Your task to perform on an android device: set the stopwatch Image 0: 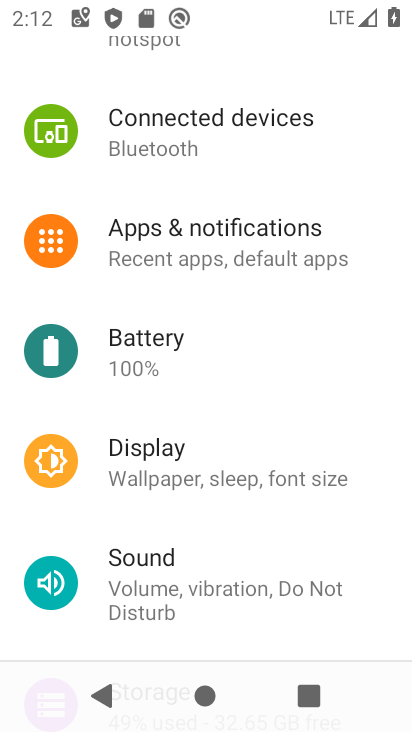
Step 0: press home button
Your task to perform on an android device: set the stopwatch Image 1: 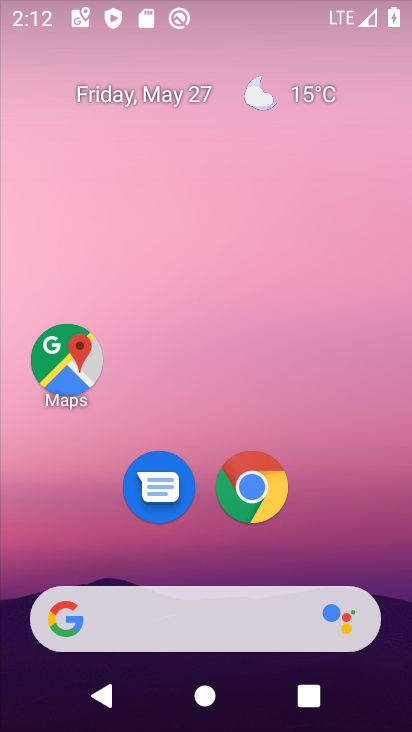
Step 1: drag from (341, 503) to (310, 137)
Your task to perform on an android device: set the stopwatch Image 2: 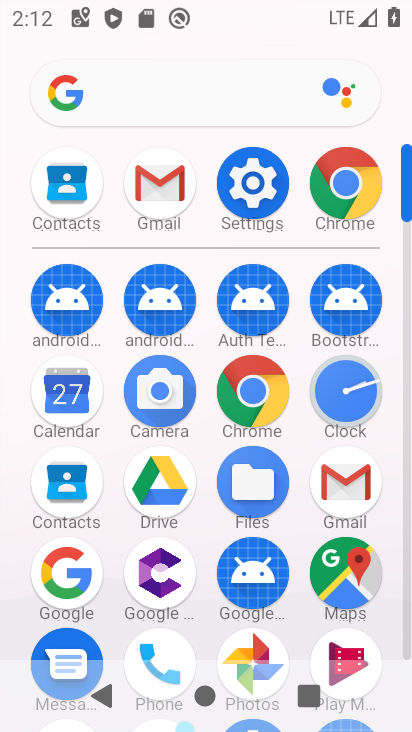
Step 2: click (350, 394)
Your task to perform on an android device: set the stopwatch Image 3: 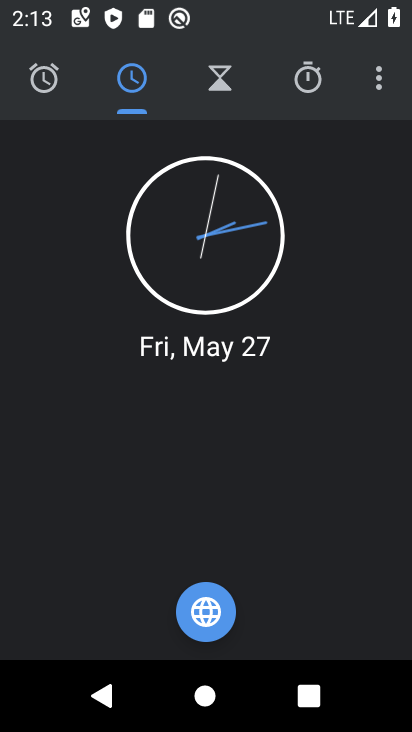
Step 3: click (296, 71)
Your task to perform on an android device: set the stopwatch Image 4: 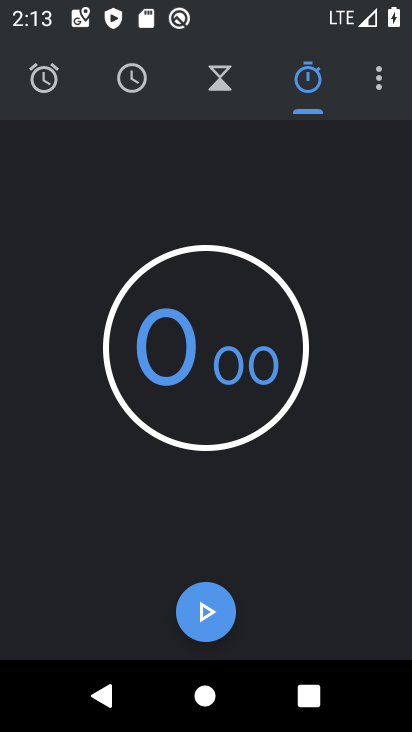
Step 4: click (225, 615)
Your task to perform on an android device: set the stopwatch Image 5: 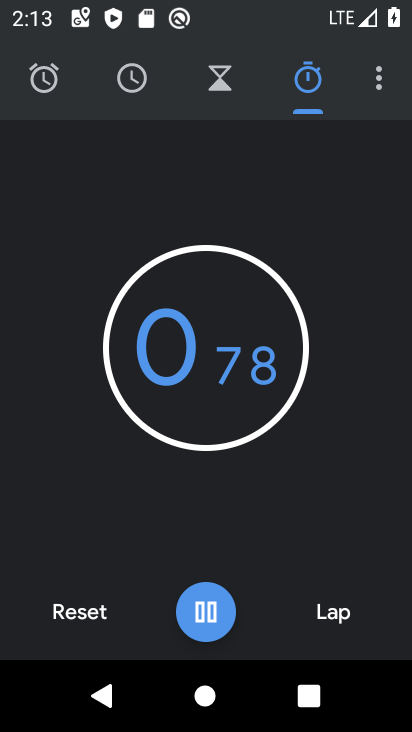
Step 5: click (224, 612)
Your task to perform on an android device: set the stopwatch Image 6: 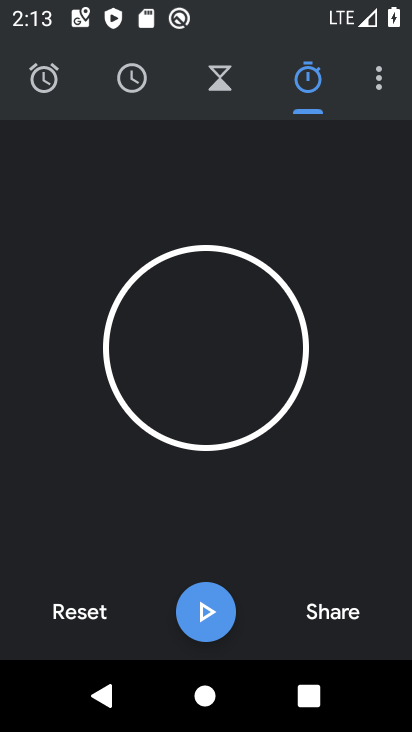
Step 6: task complete